Your task to perform on an android device: Add "logitech g502" to the cart on bestbuy Image 0: 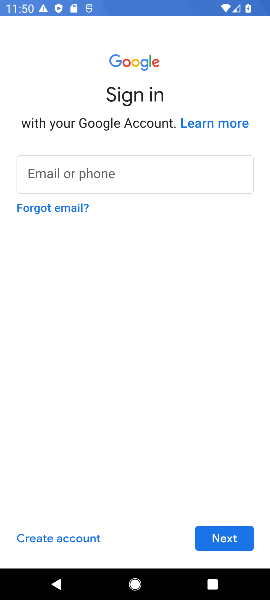
Step 0: press home button
Your task to perform on an android device: Add "logitech g502" to the cart on bestbuy Image 1: 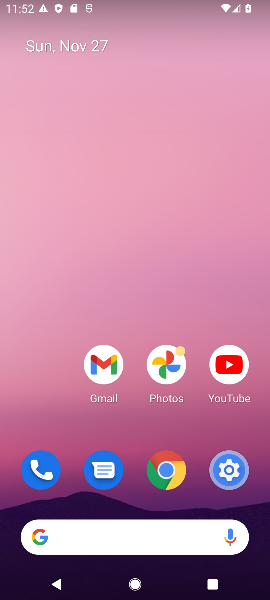
Step 1: click (124, 539)
Your task to perform on an android device: Add "logitech g502" to the cart on bestbuy Image 2: 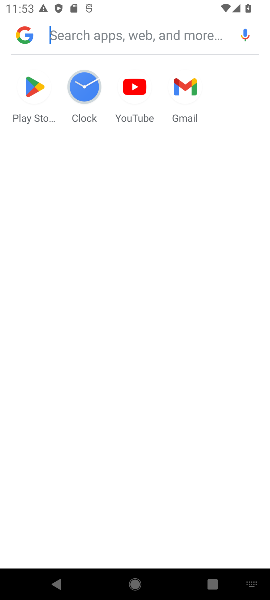
Step 2: task complete